Your task to perform on an android device: Is it going to rain today? Image 0: 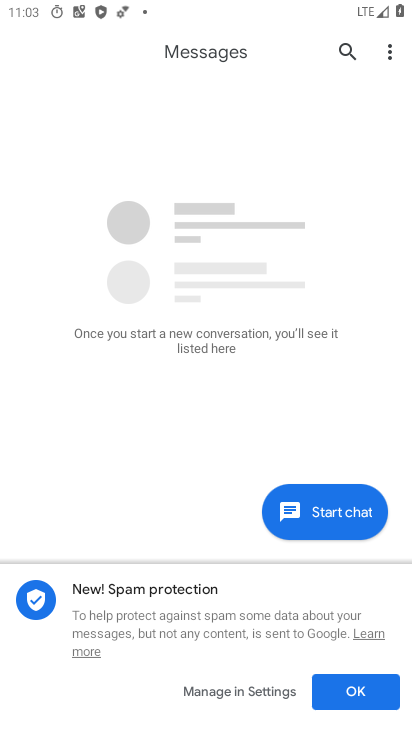
Step 0: press home button
Your task to perform on an android device: Is it going to rain today? Image 1: 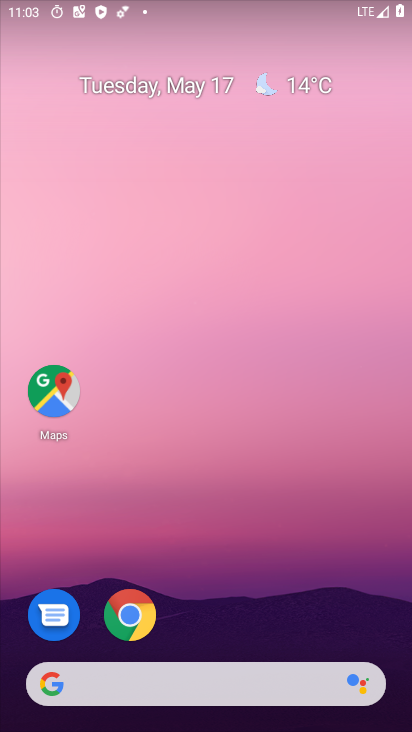
Step 1: click (305, 86)
Your task to perform on an android device: Is it going to rain today? Image 2: 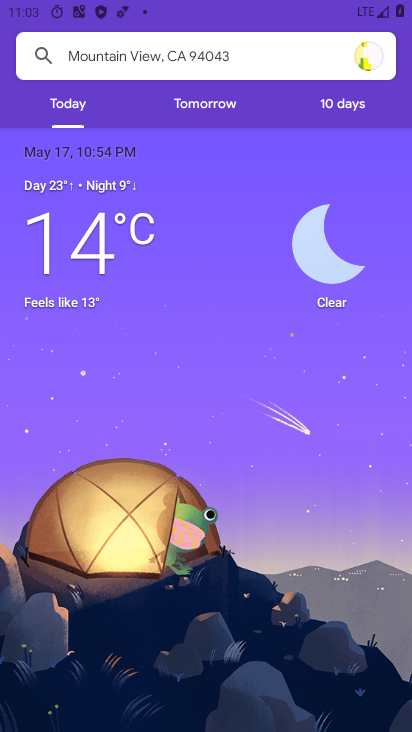
Step 2: task complete